Your task to perform on an android device: snooze an email in the gmail app Image 0: 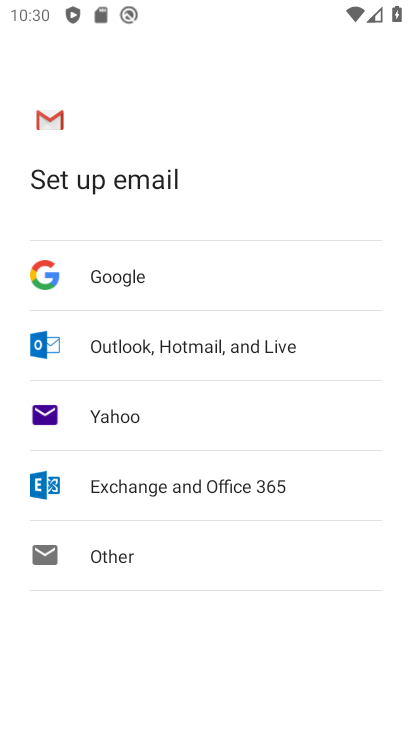
Step 0: press home button
Your task to perform on an android device: snooze an email in the gmail app Image 1: 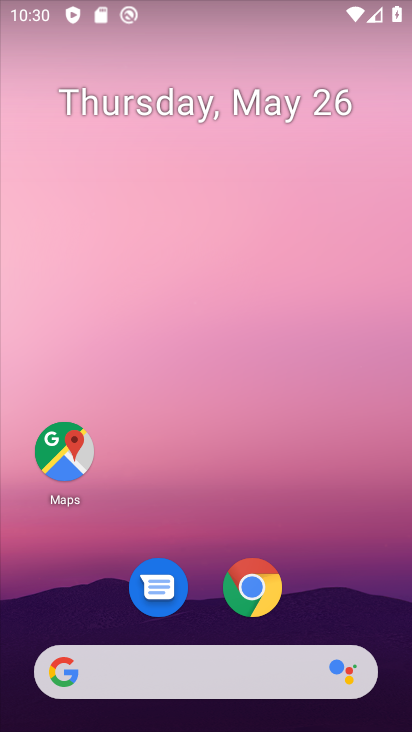
Step 1: drag from (124, 667) to (252, 157)
Your task to perform on an android device: snooze an email in the gmail app Image 2: 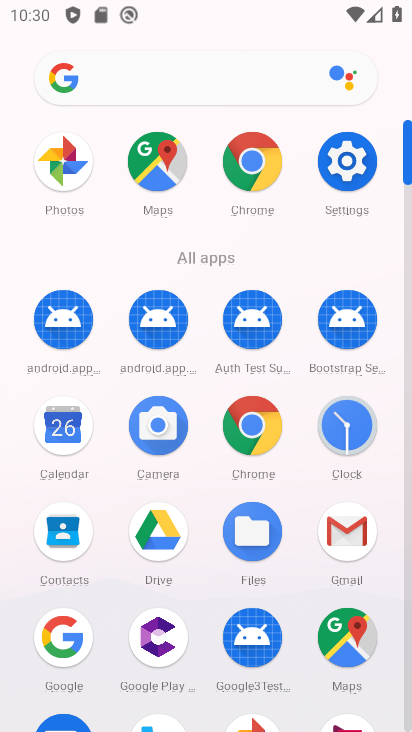
Step 2: click (347, 515)
Your task to perform on an android device: snooze an email in the gmail app Image 3: 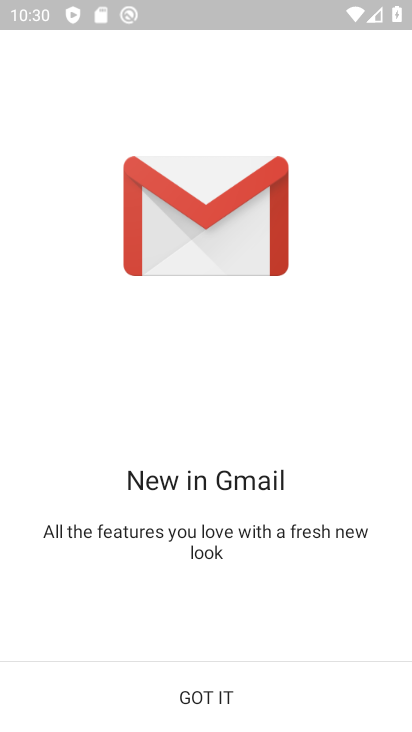
Step 3: click (225, 693)
Your task to perform on an android device: snooze an email in the gmail app Image 4: 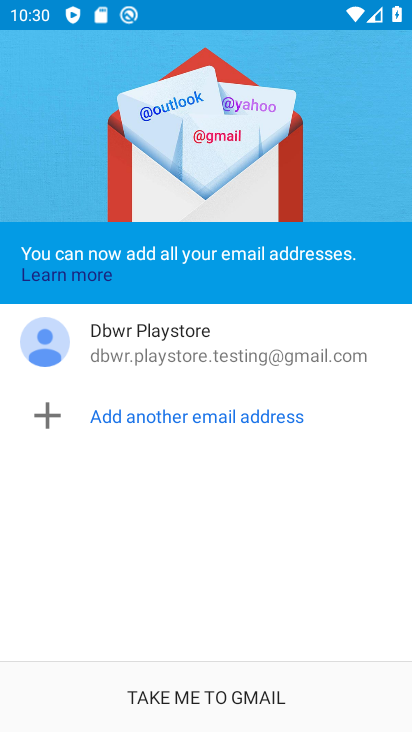
Step 4: click (264, 704)
Your task to perform on an android device: snooze an email in the gmail app Image 5: 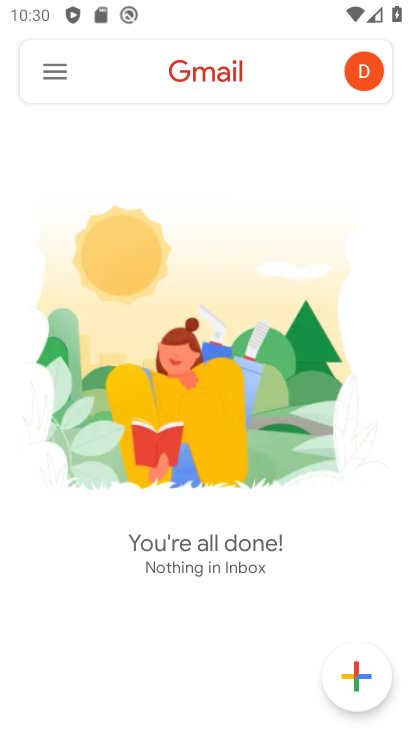
Step 5: click (60, 82)
Your task to perform on an android device: snooze an email in the gmail app Image 6: 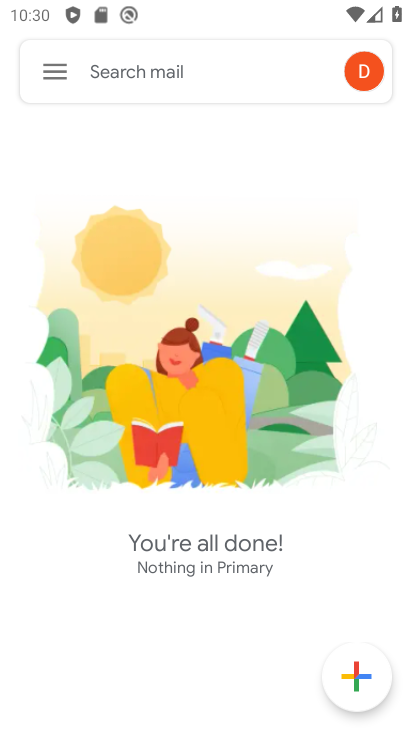
Step 6: click (58, 64)
Your task to perform on an android device: snooze an email in the gmail app Image 7: 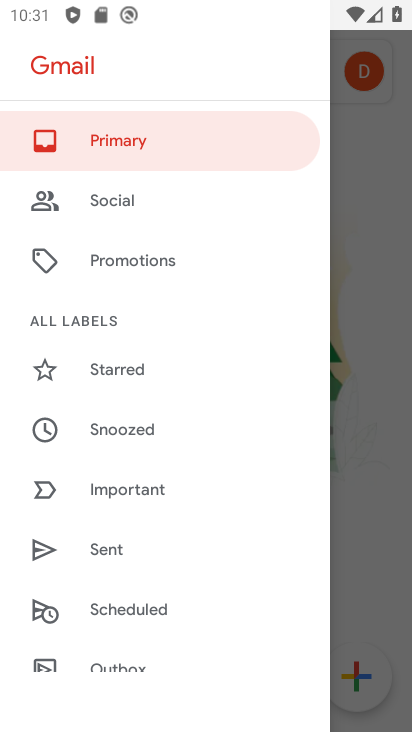
Step 7: click (144, 424)
Your task to perform on an android device: snooze an email in the gmail app Image 8: 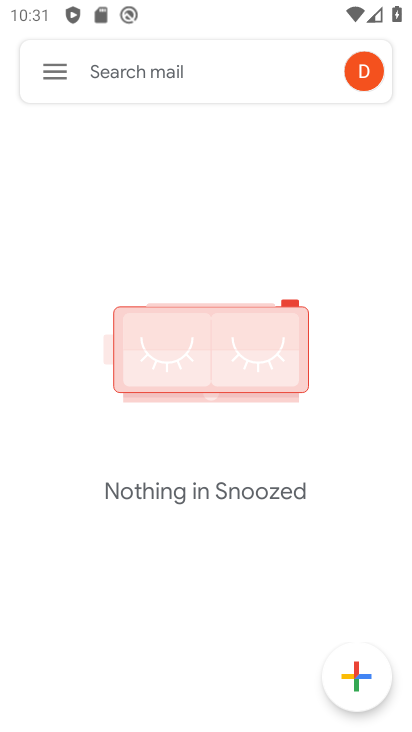
Step 8: task complete